Your task to perform on an android device: Do I have any events tomorrow? Image 0: 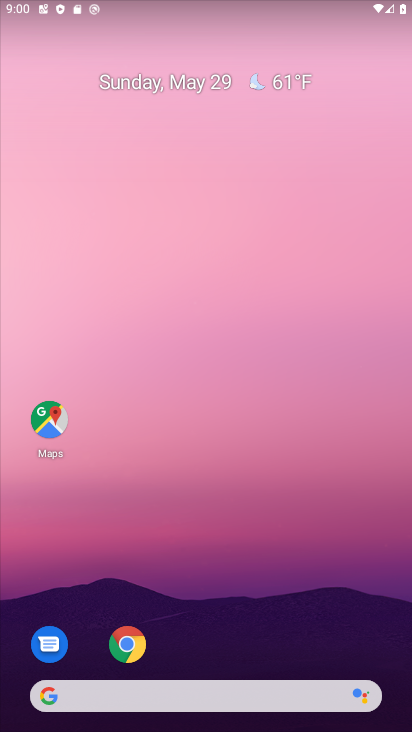
Step 0: drag from (203, 687) to (237, 51)
Your task to perform on an android device: Do I have any events tomorrow? Image 1: 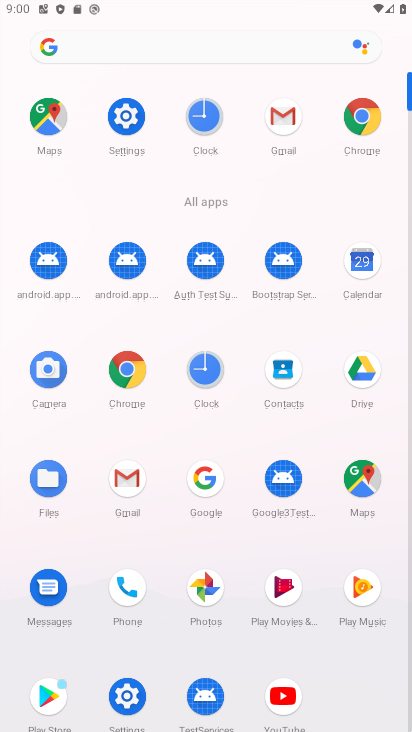
Step 1: click (365, 265)
Your task to perform on an android device: Do I have any events tomorrow? Image 2: 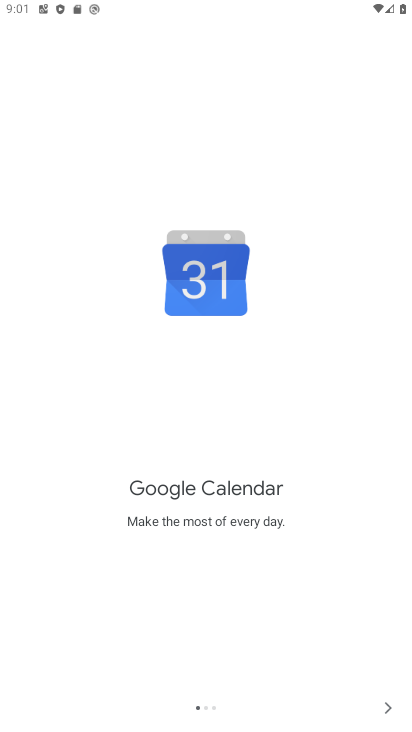
Step 2: click (389, 700)
Your task to perform on an android device: Do I have any events tomorrow? Image 3: 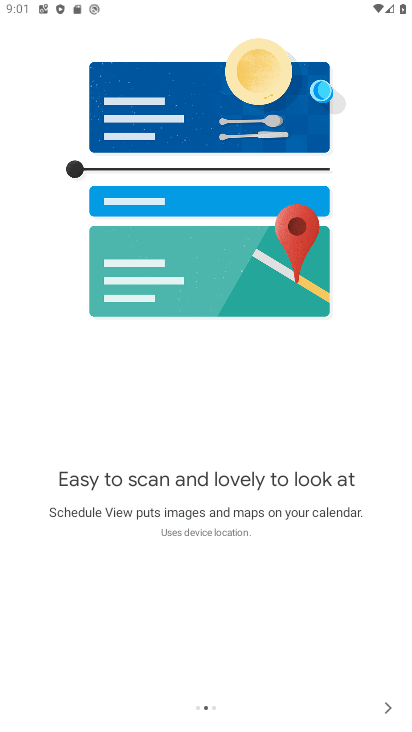
Step 3: click (389, 700)
Your task to perform on an android device: Do I have any events tomorrow? Image 4: 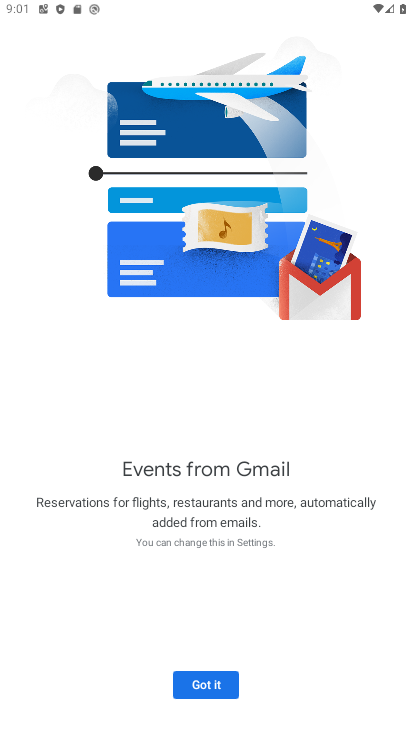
Step 4: click (218, 678)
Your task to perform on an android device: Do I have any events tomorrow? Image 5: 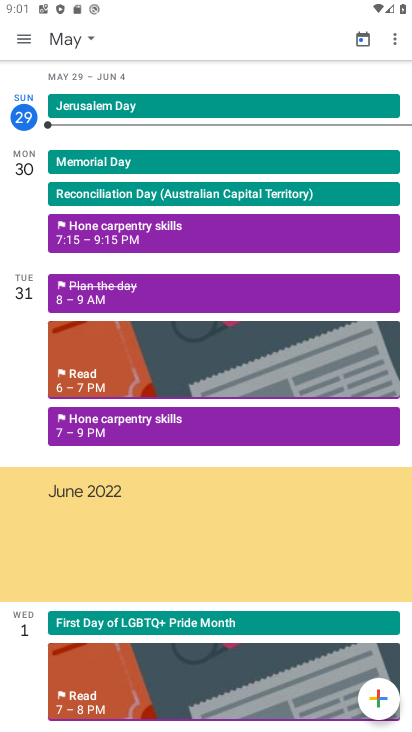
Step 5: click (21, 36)
Your task to perform on an android device: Do I have any events tomorrow? Image 6: 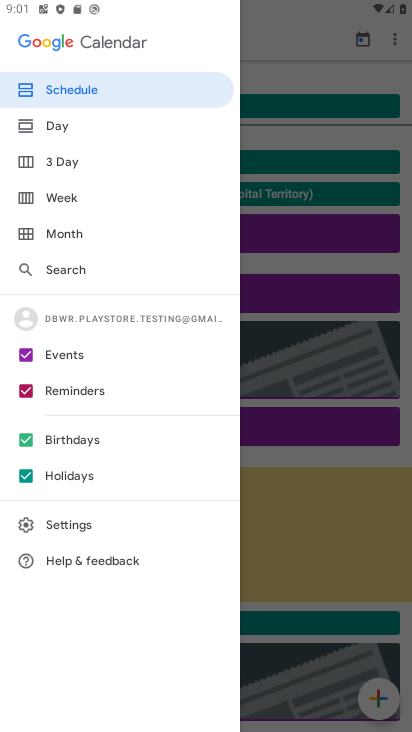
Step 6: click (79, 86)
Your task to perform on an android device: Do I have any events tomorrow? Image 7: 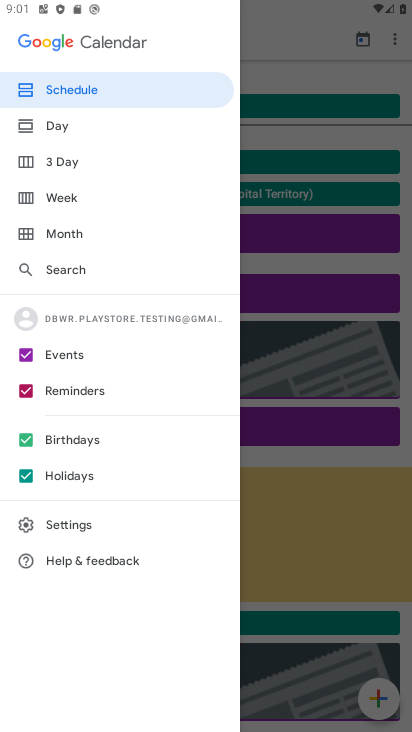
Step 7: click (123, 92)
Your task to perform on an android device: Do I have any events tomorrow? Image 8: 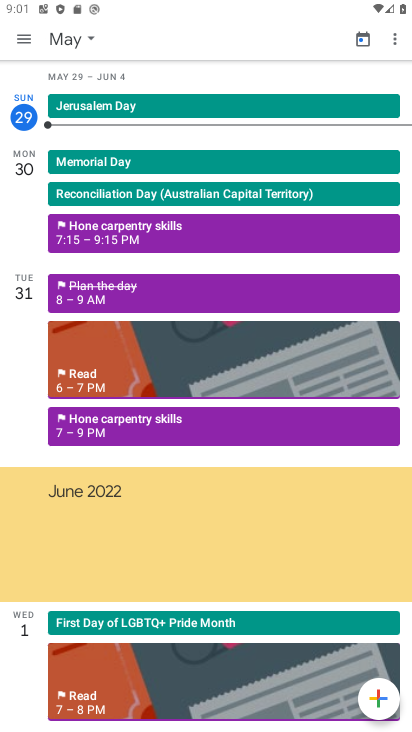
Step 8: task complete